Your task to perform on an android device: snooze an email in the gmail app Image 0: 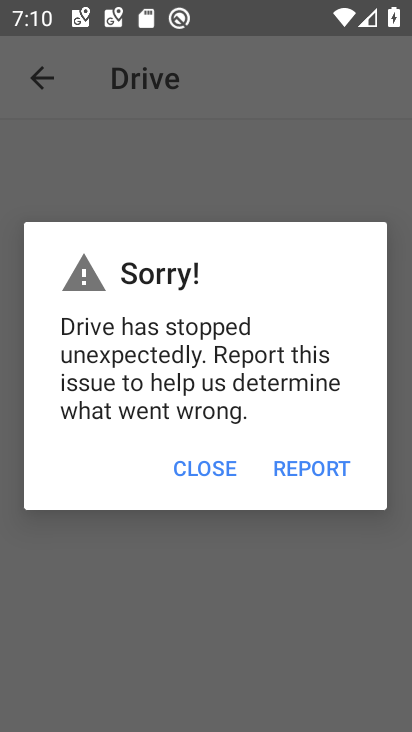
Step 0: press home button
Your task to perform on an android device: snooze an email in the gmail app Image 1: 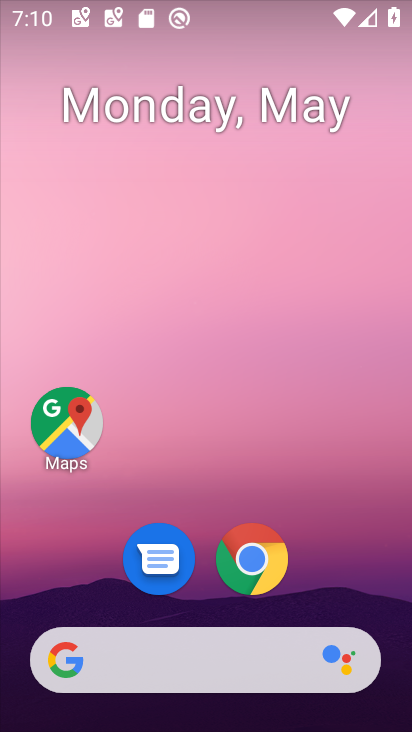
Step 1: drag from (405, 640) to (233, 3)
Your task to perform on an android device: snooze an email in the gmail app Image 2: 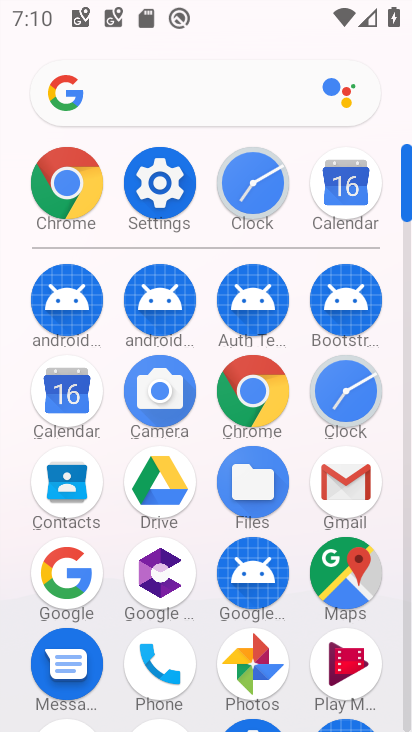
Step 2: click (332, 474)
Your task to perform on an android device: snooze an email in the gmail app Image 3: 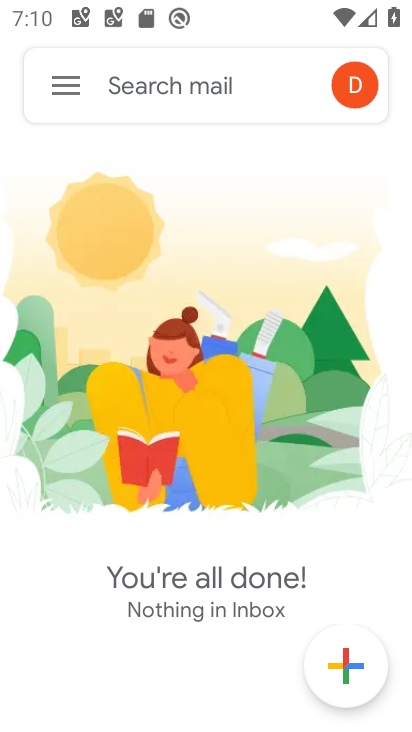
Step 3: task complete